Your task to perform on an android device: Go to battery settings Image 0: 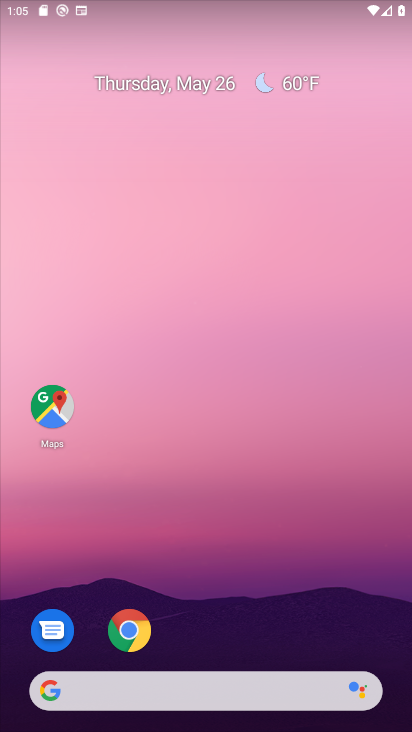
Step 0: drag from (317, 582) to (378, 55)
Your task to perform on an android device: Go to battery settings Image 1: 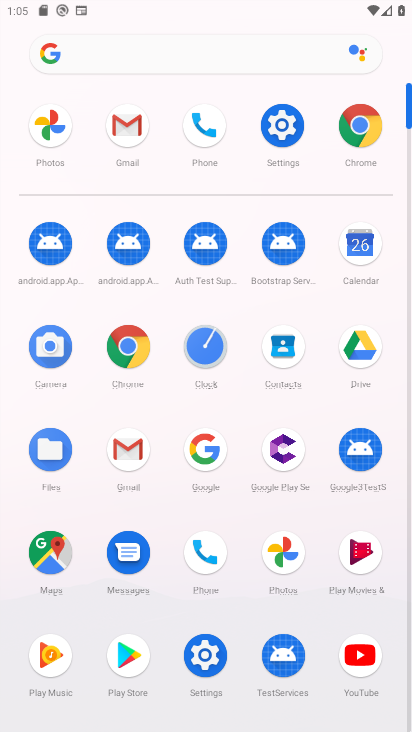
Step 1: click (284, 123)
Your task to perform on an android device: Go to battery settings Image 2: 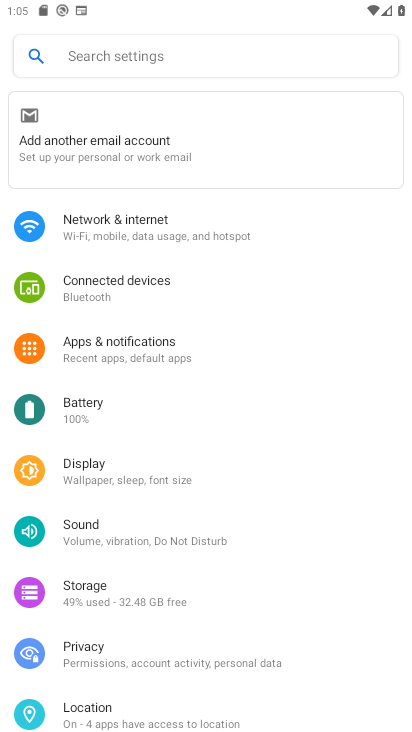
Step 2: click (129, 410)
Your task to perform on an android device: Go to battery settings Image 3: 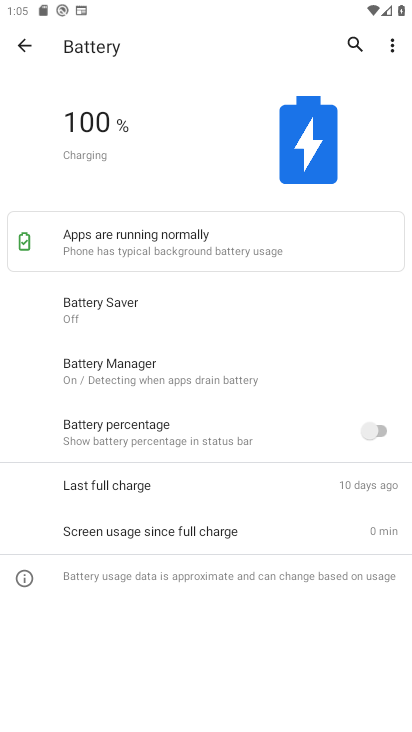
Step 3: task complete